Your task to perform on an android device: Search for seafood restaurants on Google Maps Image 0: 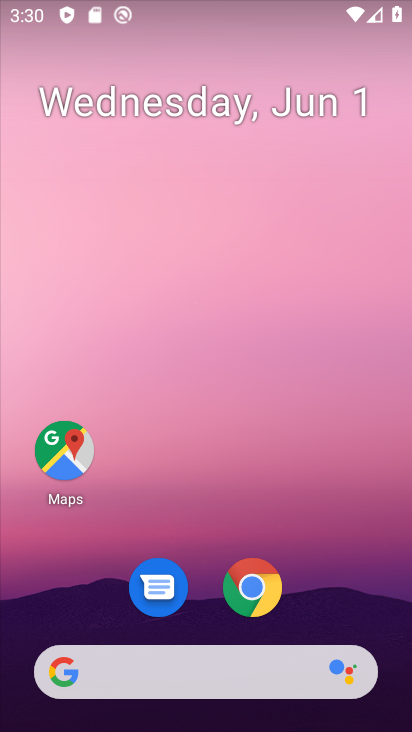
Step 0: click (46, 440)
Your task to perform on an android device: Search for seafood restaurants on Google Maps Image 1: 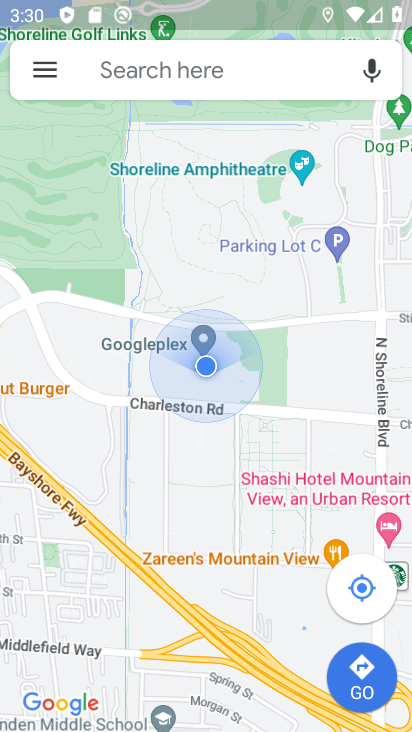
Step 1: click (194, 89)
Your task to perform on an android device: Search for seafood restaurants on Google Maps Image 2: 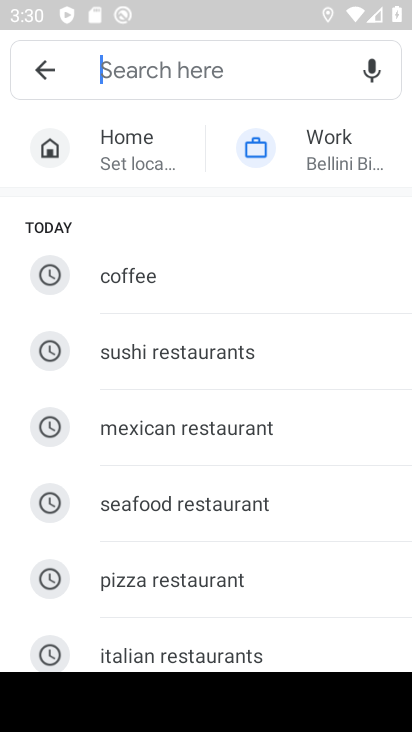
Step 2: click (249, 510)
Your task to perform on an android device: Search for seafood restaurants on Google Maps Image 3: 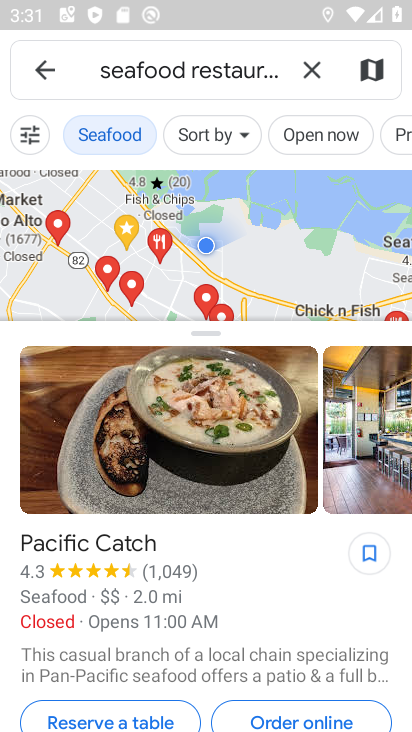
Step 3: task complete